Your task to perform on an android device: open a bookmark in the chrome app Image 0: 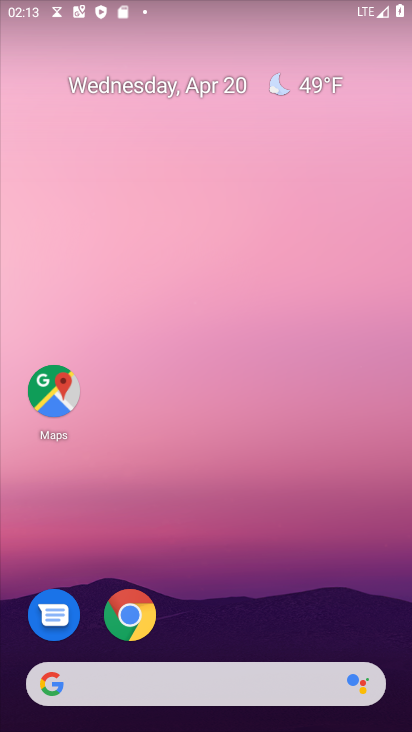
Step 0: click (155, 610)
Your task to perform on an android device: open a bookmark in the chrome app Image 1: 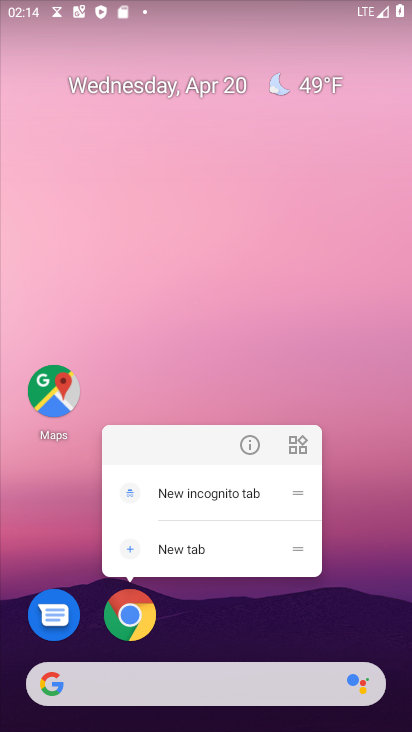
Step 1: click (251, 443)
Your task to perform on an android device: open a bookmark in the chrome app Image 2: 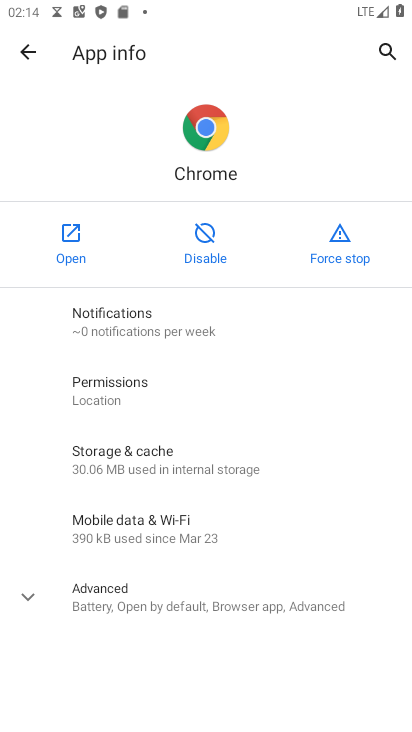
Step 2: click (70, 258)
Your task to perform on an android device: open a bookmark in the chrome app Image 3: 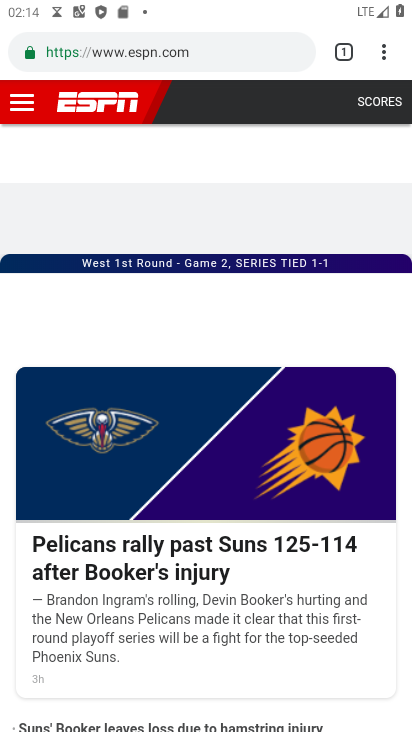
Step 3: click (389, 53)
Your task to perform on an android device: open a bookmark in the chrome app Image 4: 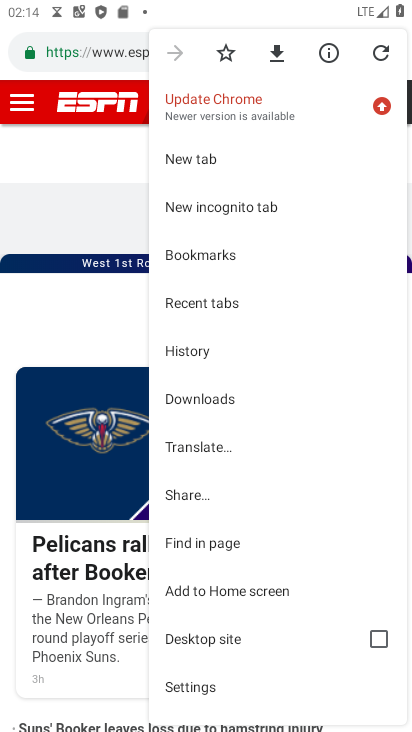
Step 4: click (247, 268)
Your task to perform on an android device: open a bookmark in the chrome app Image 5: 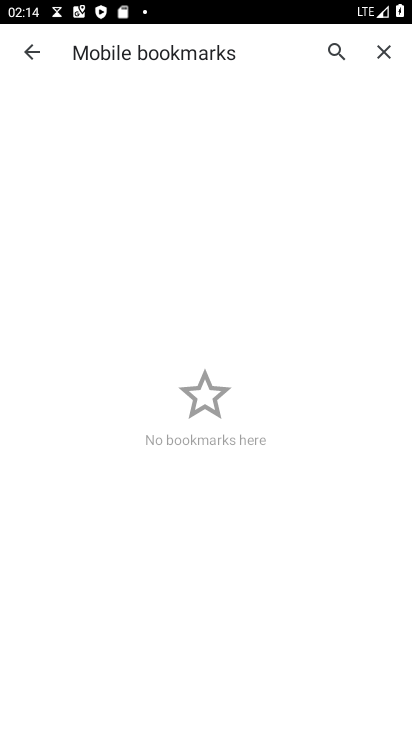
Step 5: task complete